Your task to perform on an android device: Open Chrome and go to settings Image 0: 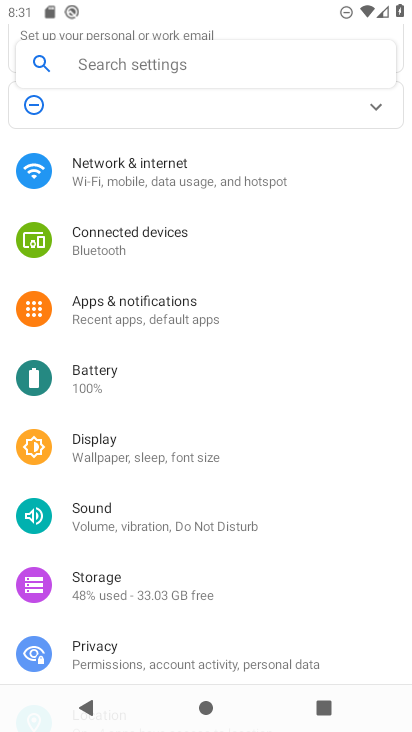
Step 0: press home button
Your task to perform on an android device: Open Chrome and go to settings Image 1: 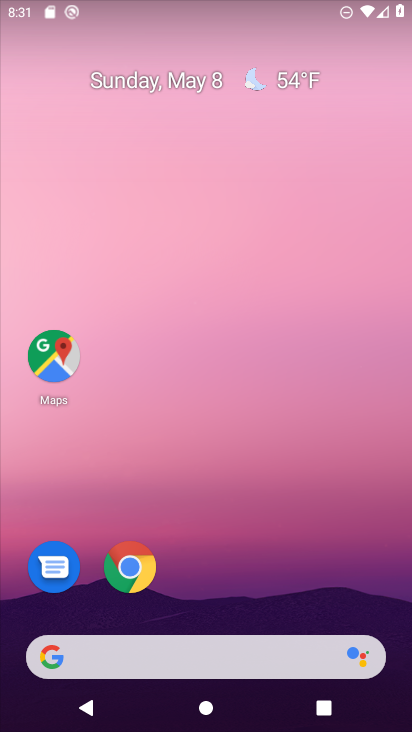
Step 1: drag from (328, 586) to (350, 113)
Your task to perform on an android device: Open Chrome and go to settings Image 2: 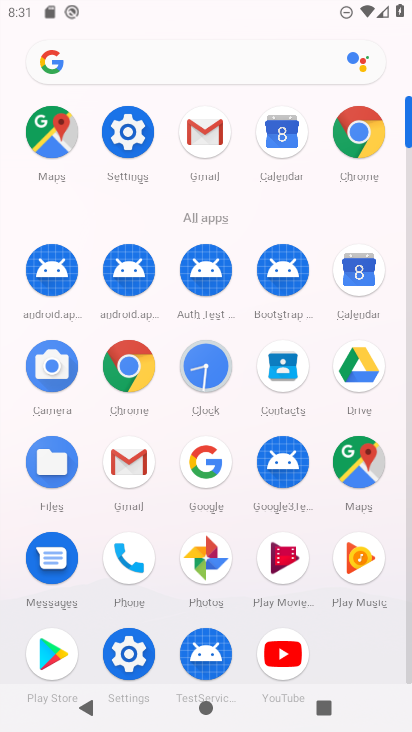
Step 2: click (360, 132)
Your task to perform on an android device: Open Chrome and go to settings Image 3: 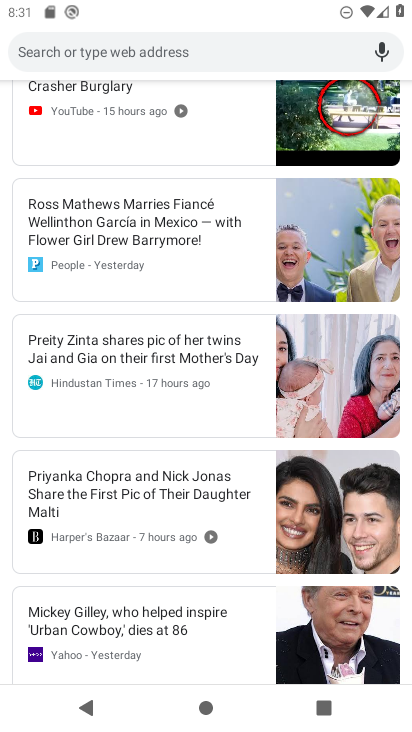
Step 3: task complete